Your task to perform on an android device: turn off location Image 0: 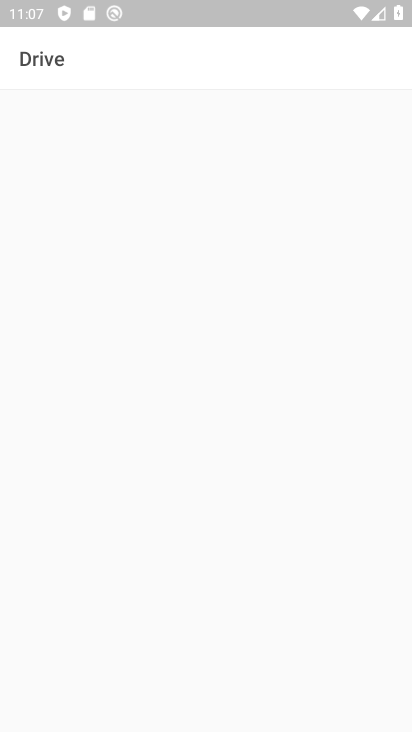
Step 0: press home button
Your task to perform on an android device: turn off location Image 1: 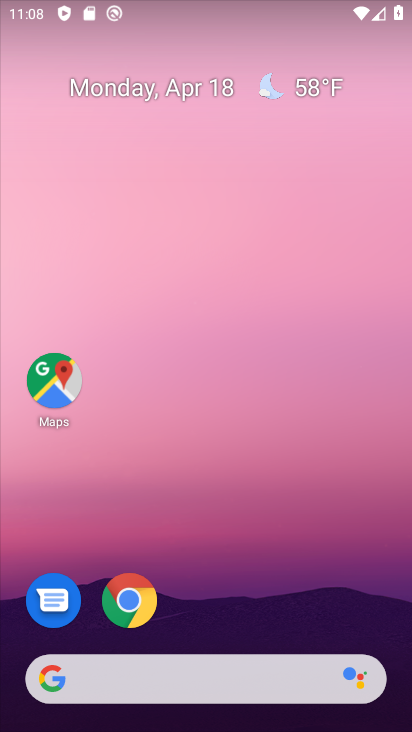
Step 1: drag from (250, 484) to (290, 146)
Your task to perform on an android device: turn off location Image 2: 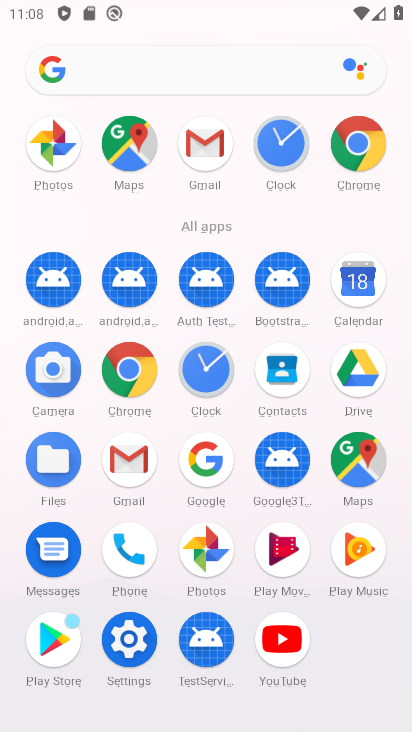
Step 2: click (128, 645)
Your task to perform on an android device: turn off location Image 3: 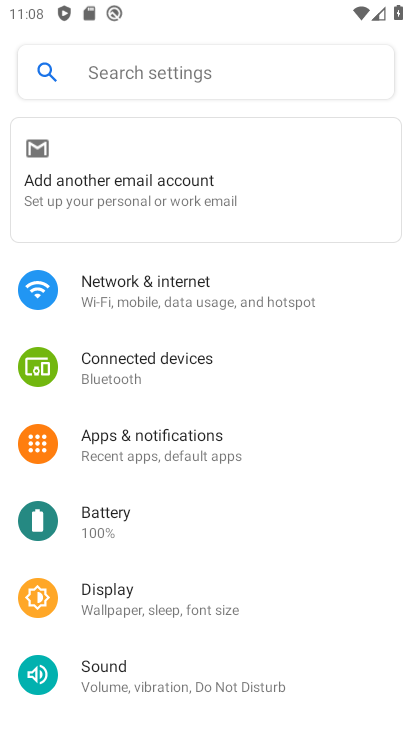
Step 3: drag from (143, 643) to (272, 81)
Your task to perform on an android device: turn off location Image 4: 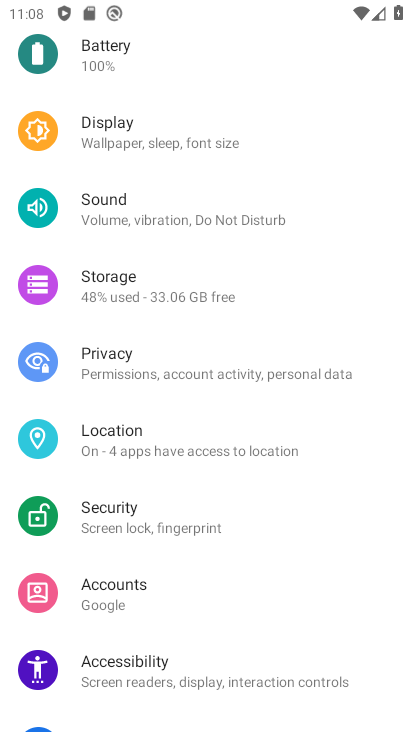
Step 4: click (125, 445)
Your task to perform on an android device: turn off location Image 5: 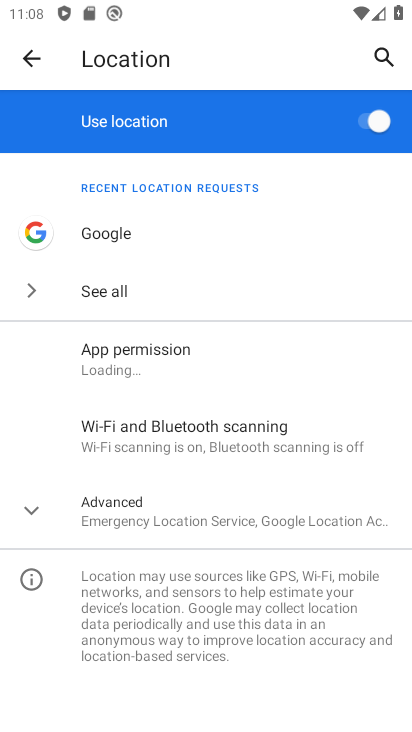
Step 5: click (389, 114)
Your task to perform on an android device: turn off location Image 6: 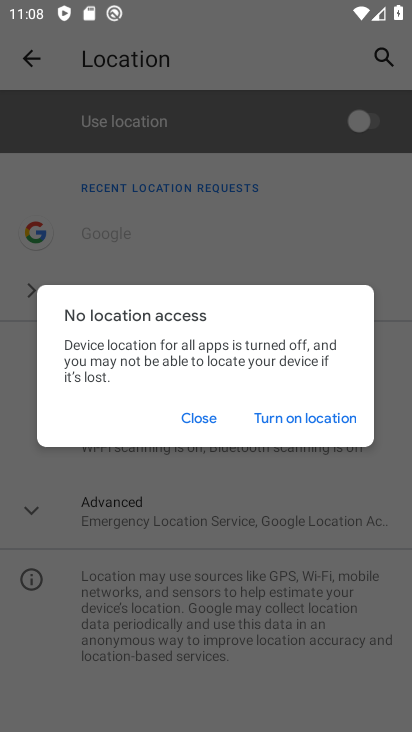
Step 6: task complete